Your task to perform on an android device: change keyboard looks Image 0: 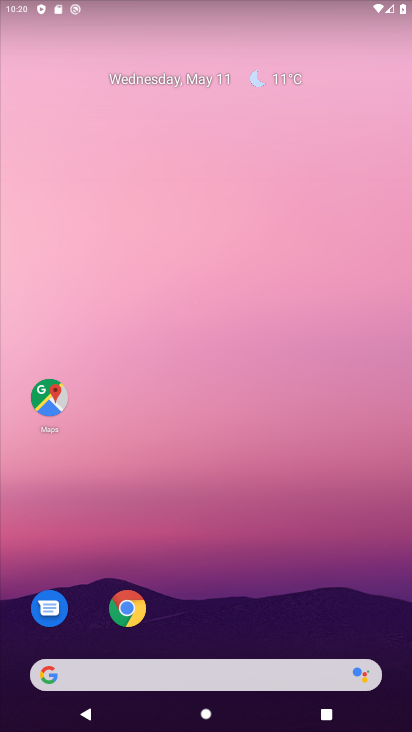
Step 0: drag from (245, 642) to (252, 243)
Your task to perform on an android device: change keyboard looks Image 1: 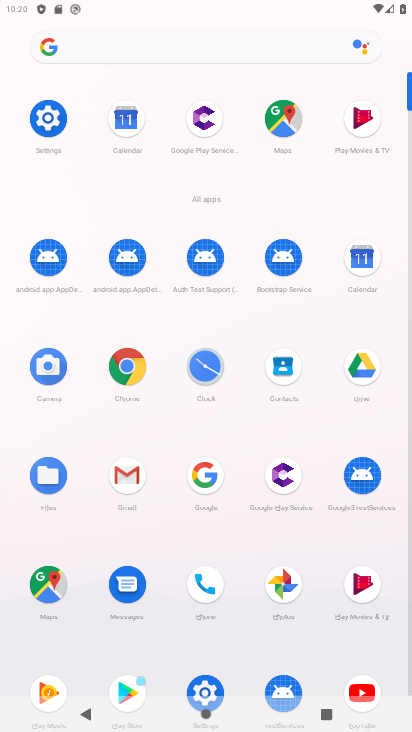
Step 1: click (48, 114)
Your task to perform on an android device: change keyboard looks Image 2: 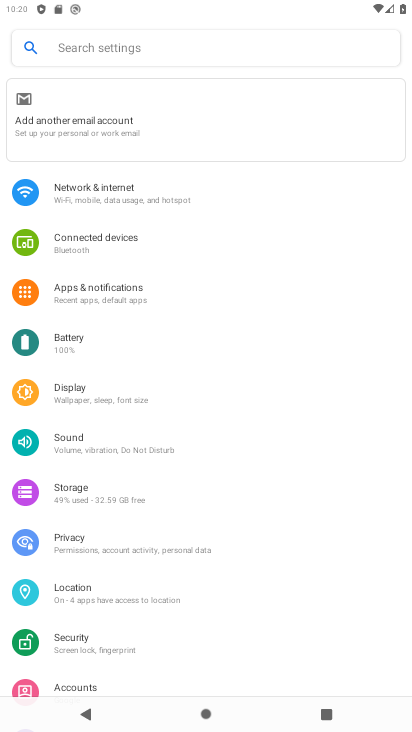
Step 2: drag from (119, 472) to (140, 222)
Your task to perform on an android device: change keyboard looks Image 3: 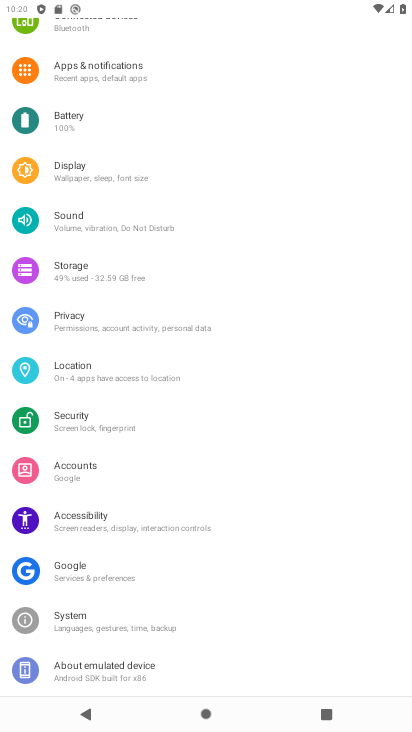
Step 3: click (122, 616)
Your task to perform on an android device: change keyboard looks Image 4: 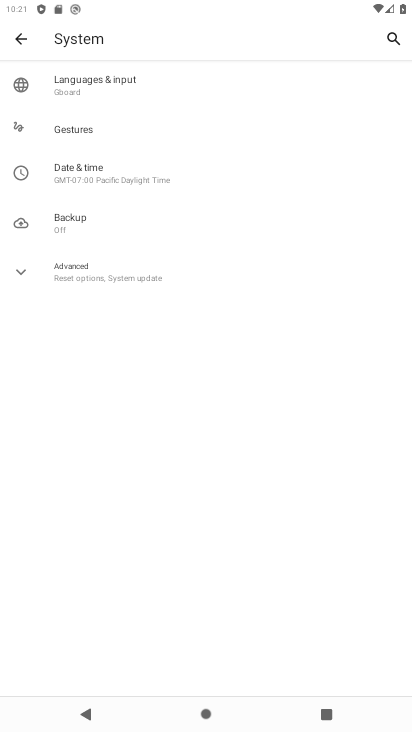
Step 4: click (109, 95)
Your task to perform on an android device: change keyboard looks Image 5: 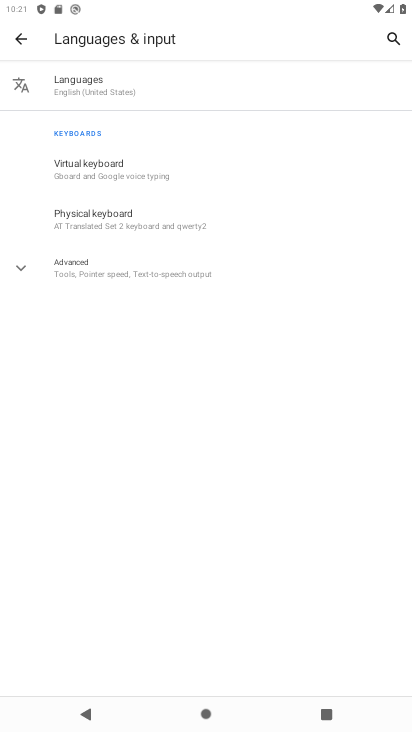
Step 5: click (111, 169)
Your task to perform on an android device: change keyboard looks Image 6: 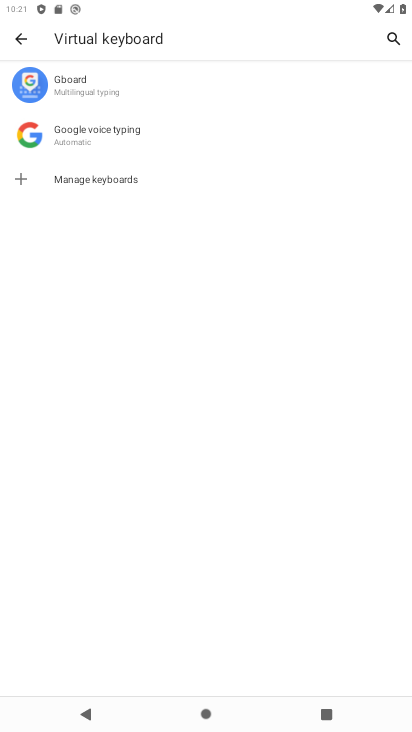
Step 6: click (101, 86)
Your task to perform on an android device: change keyboard looks Image 7: 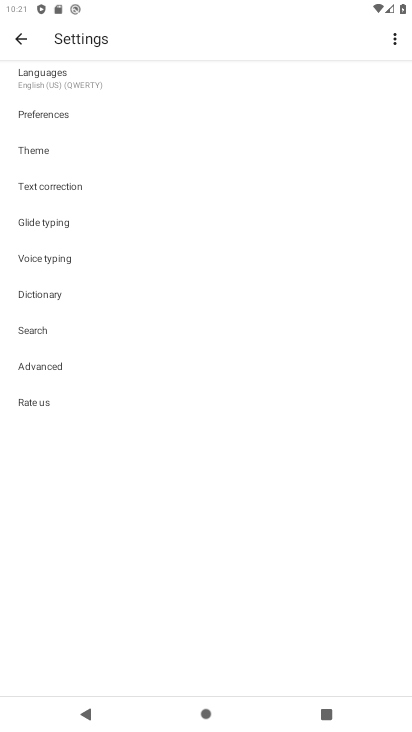
Step 7: click (16, 41)
Your task to perform on an android device: change keyboard looks Image 8: 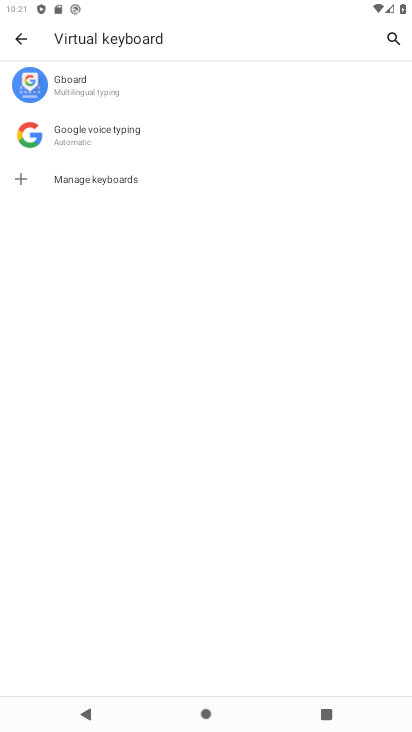
Step 8: click (115, 174)
Your task to perform on an android device: change keyboard looks Image 9: 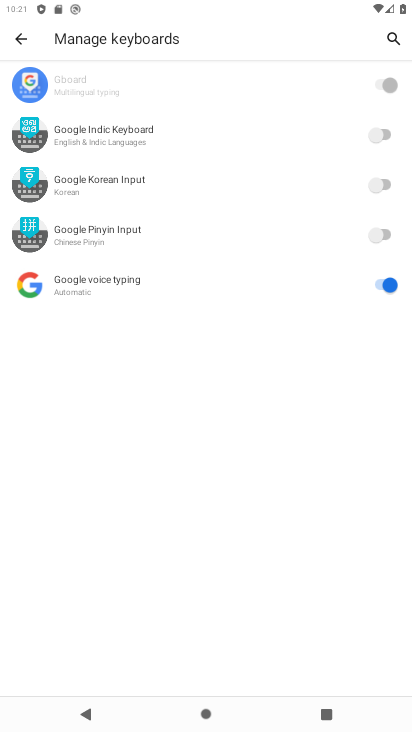
Step 9: task complete